Your task to perform on an android device: Open notification settings Image 0: 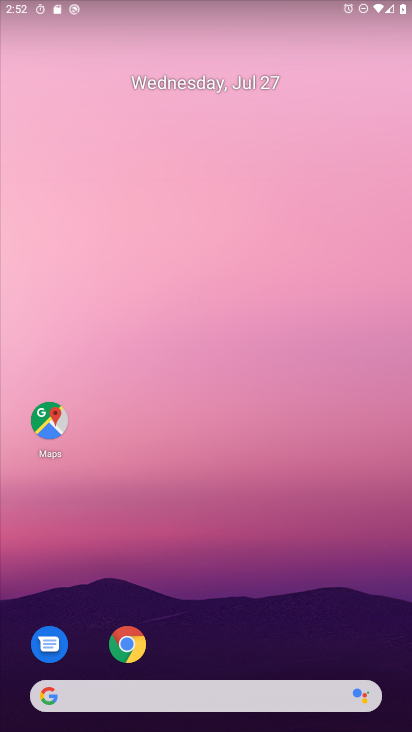
Step 0: drag from (218, 582) to (305, 155)
Your task to perform on an android device: Open notification settings Image 1: 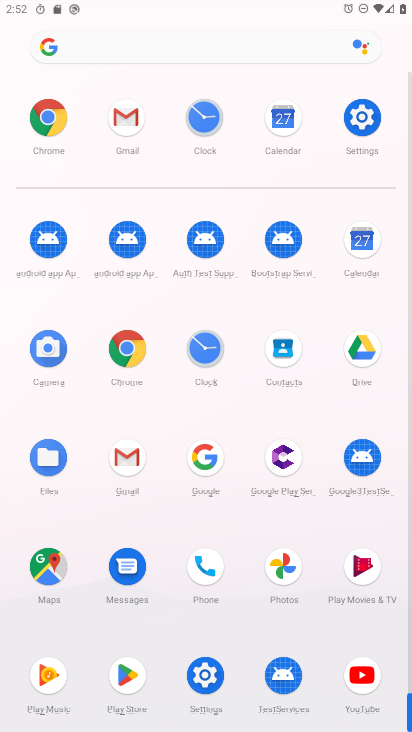
Step 1: click (193, 678)
Your task to perform on an android device: Open notification settings Image 2: 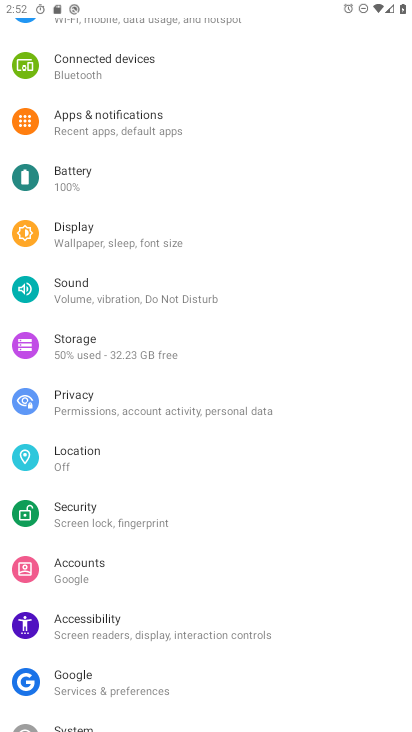
Step 2: click (185, 128)
Your task to perform on an android device: Open notification settings Image 3: 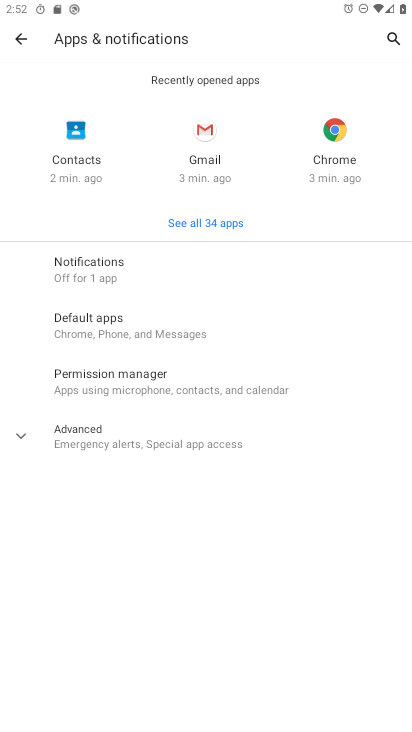
Step 3: click (135, 253)
Your task to perform on an android device: Open notification settings Image 4: 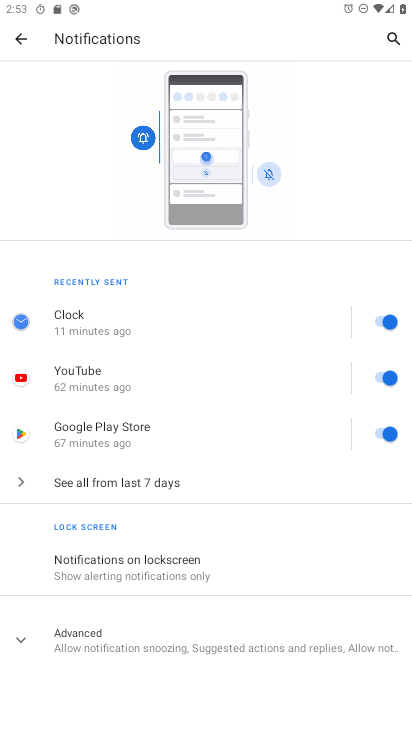
Step 4: task complete